Your task to perform on an android device: toggle sleep mode Image 0: 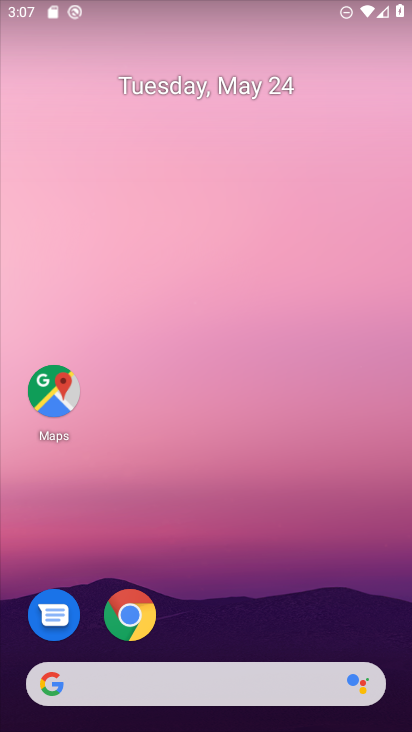
Step 0: drag from (241, 614) to (288, 61)
Your task to perform on an android device: toggle sleep mode Image 1: 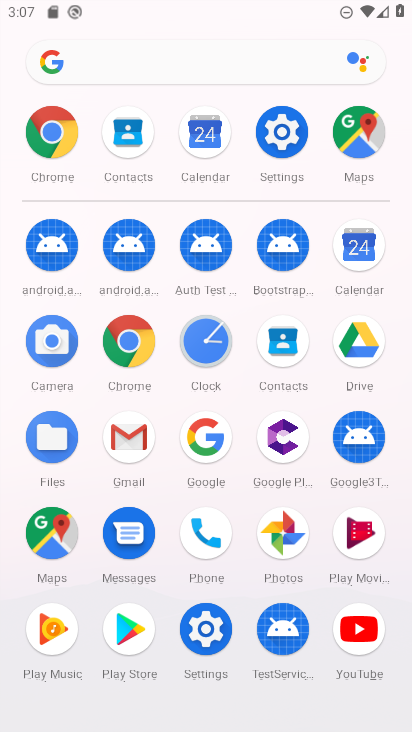
Step 1: click (276, 142)
Your task to perform on an android device: toggle sleep mode Image 2: 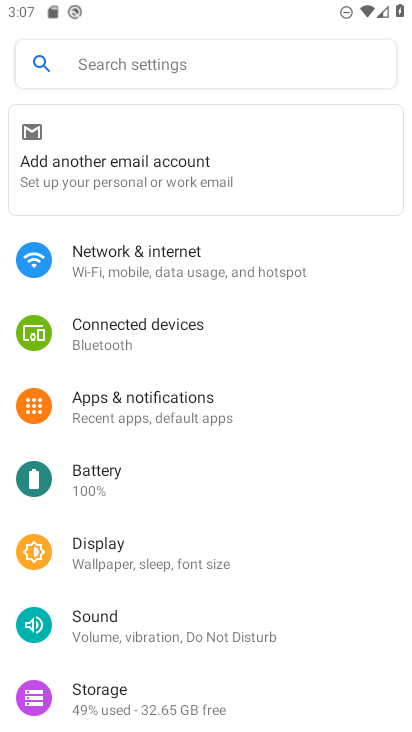
Step 2: drag from (176, 513) to (202, 348)
Your task to perform on an android device: toggle sleep mode Image 3: 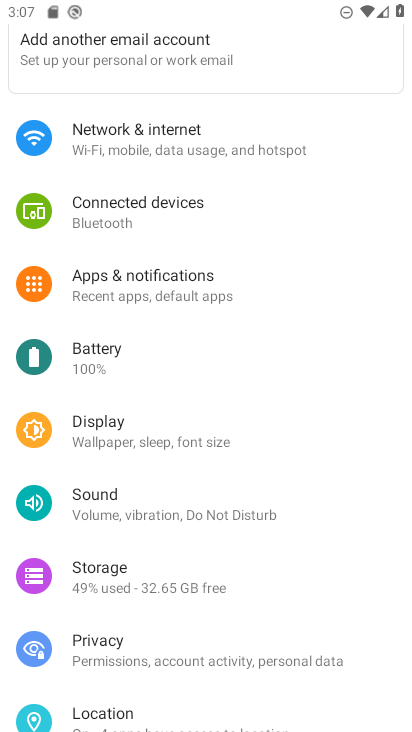
Step 3: drag from (304, 290) to (279, 547)
Your task to perform on an android device: toggle sleep mode Image 4: 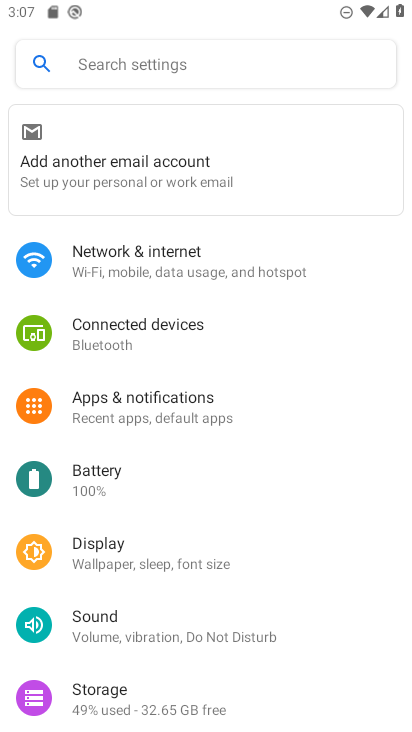
Step 4: click (141, 557)
Your task to perform on an android device: toggle sleep mode Image 5: 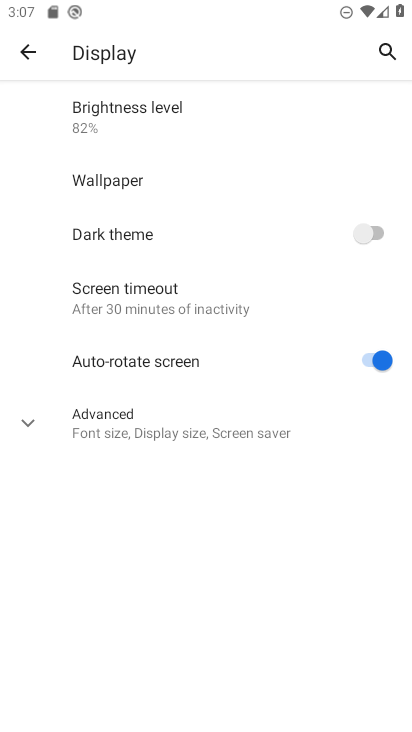
Step 5: click (180, 427)
Your task to perform on an android device: toggle sleep mode Image 6: 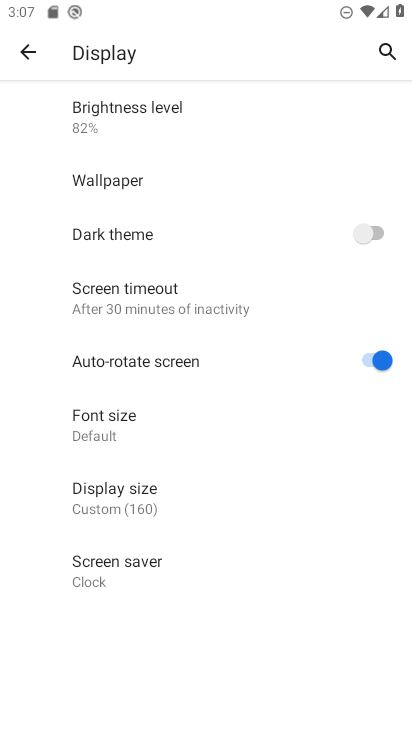
Step 6: task complete